Your task to perform on an android device: Look up the new steph curry shoes Image 0: 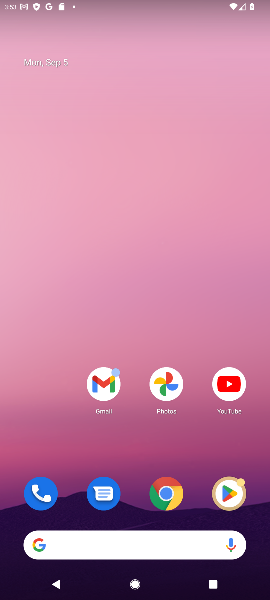
Step 0: drag from (187, 461) to (180, 18)
Your task to perform on an android device: Look up the new steph curry shoes Image 1: 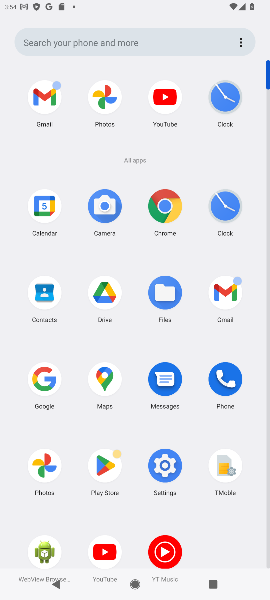
Step 1: click (167, 208)
Your task to perform on an android device: Look up the new steph curry shoes Image 2: 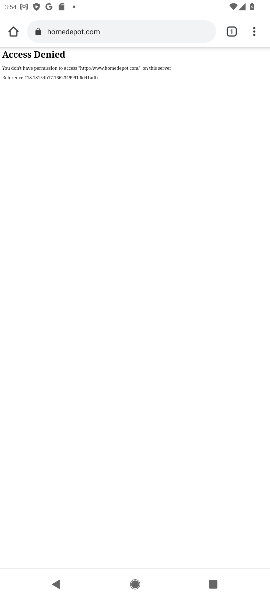
Step 2: click (96, 29)
Your task to perform on an android device: Look up the new steph curry shoes Image 3: 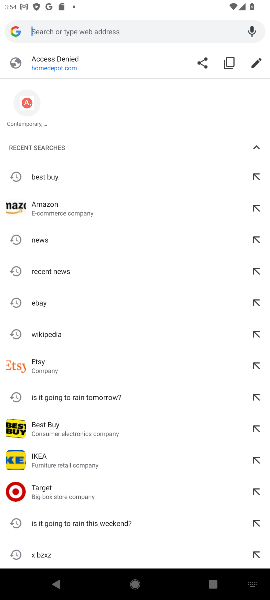
Step 3: type "new steph curry shoes"
Your task to perform on an android device: Look up the new steph curry shoes Image 4: 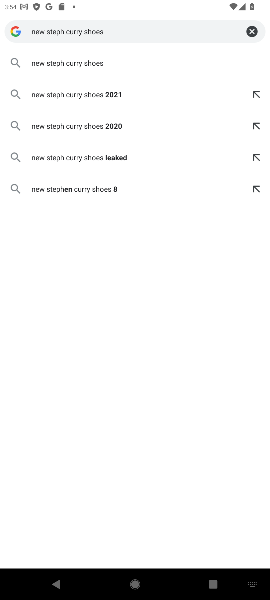
Step 4: click (84, 58)
Your task to perform on an android device: Look up the new steph curry shoes Image 5: 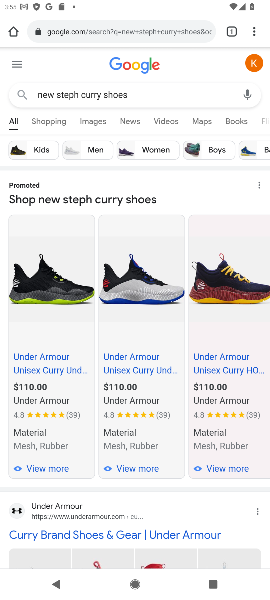
Step 5: task complete